Your task to perform on an android device: empty trash in the gmail app Image 0: 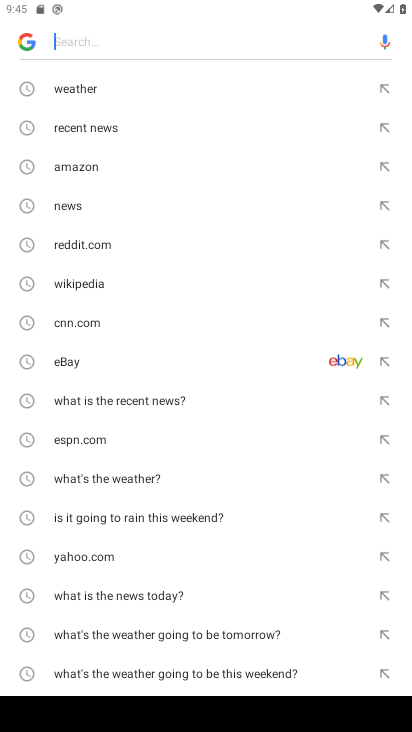
Step 0: press back button
Your task to perform on an android device: empty trash in the gmail app Image 1: 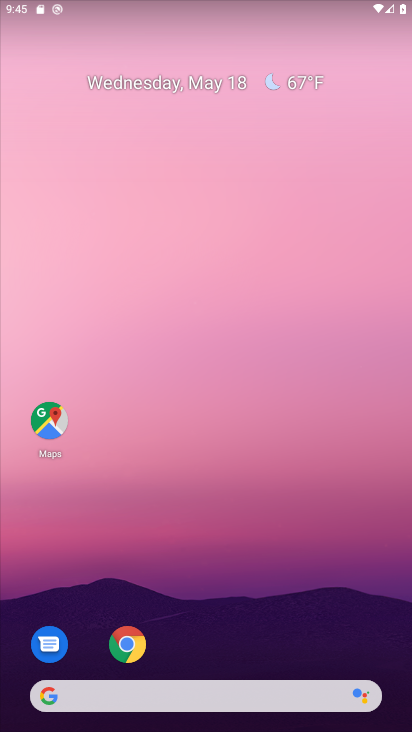
Step 1: press back button
Your task to perform on an android device: empty trash in the gmail app Image 2: 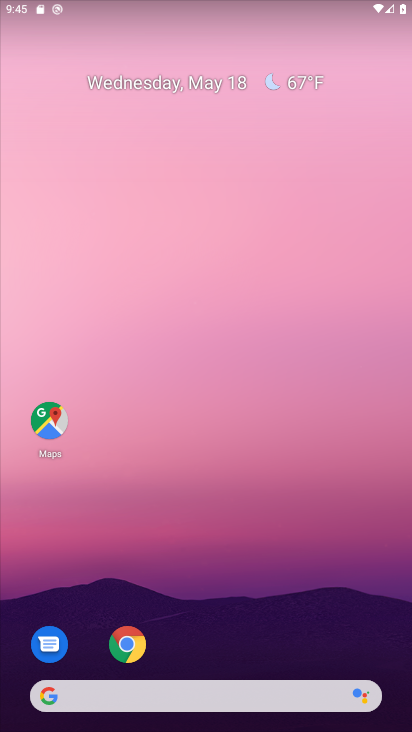
Step 2: drag from (239, 528) to (295, 10)
Your task to perform on an android device: empty trash in the gmail app Image 3: 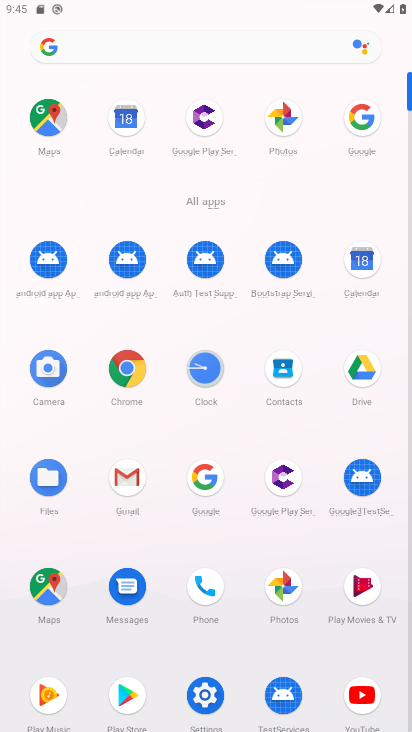
Step 3: click (126, 478)
Your task to perform on an android device: empty trash in the gmail app Image 4: 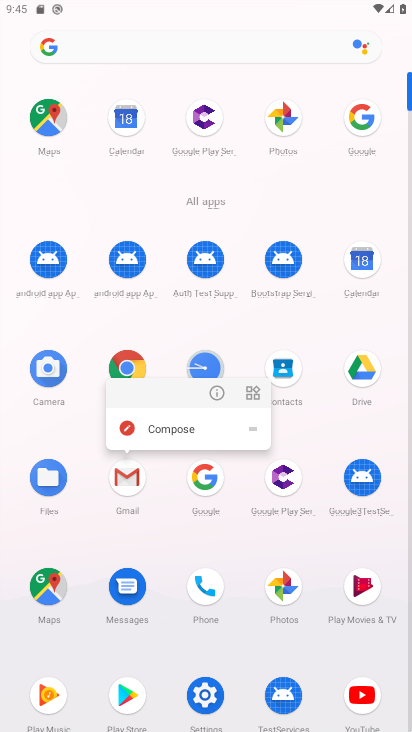
Step 4: click (126, 478)
Your task to perform on an android device: empty trash in the gmail app Image 5: 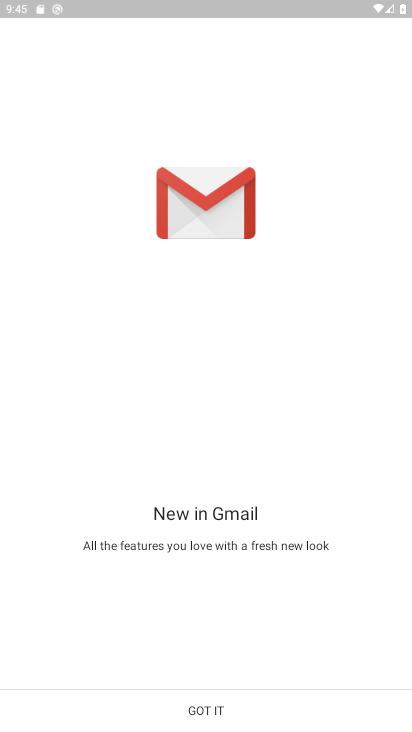
Step 5: click (213, 708)
Your task to perform on an android device: empty trash in the gmail app Image 6: 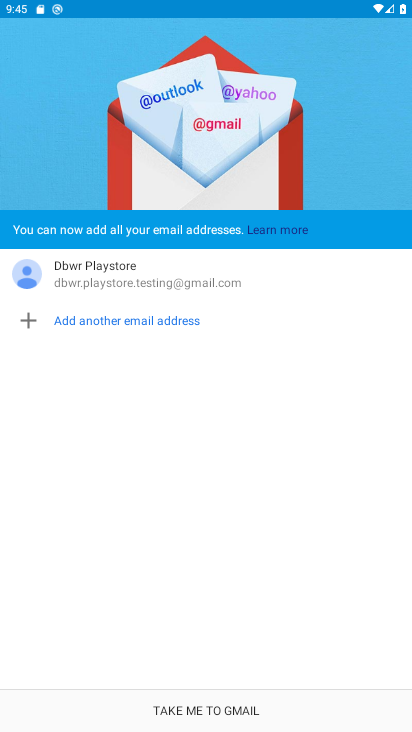
Step 6: click (205, 712)
Your task to perform on an android device: empty trash in the gmail app Image 7: 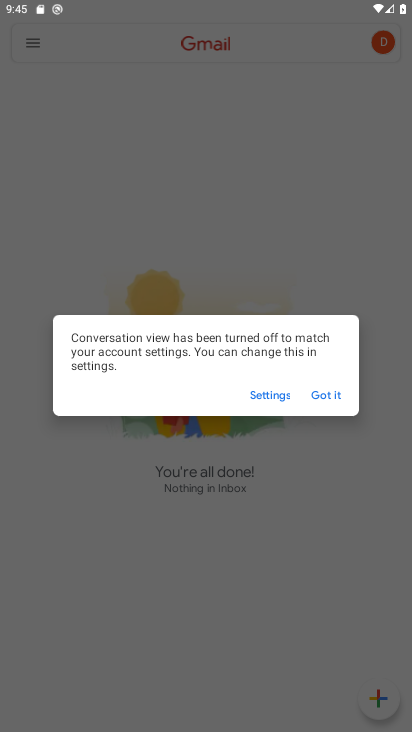
Step 7: click (340, 399)
Your task to perform on an android device: empty trash in the gmail app Image 8: 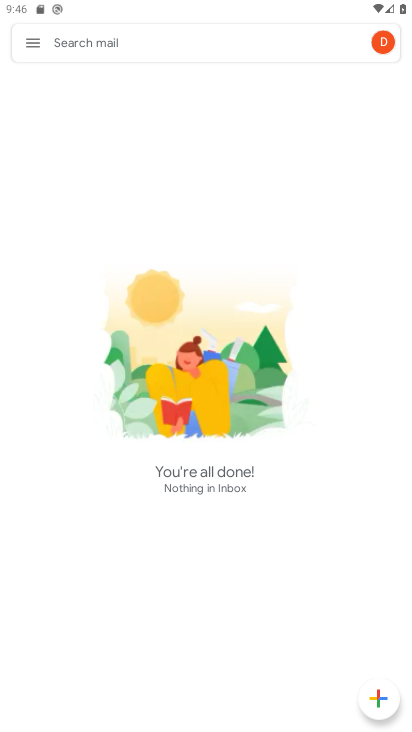
Step 8: click (35, 43)
Your task to perform on an android device: empty trash in the gmail app Image 9: 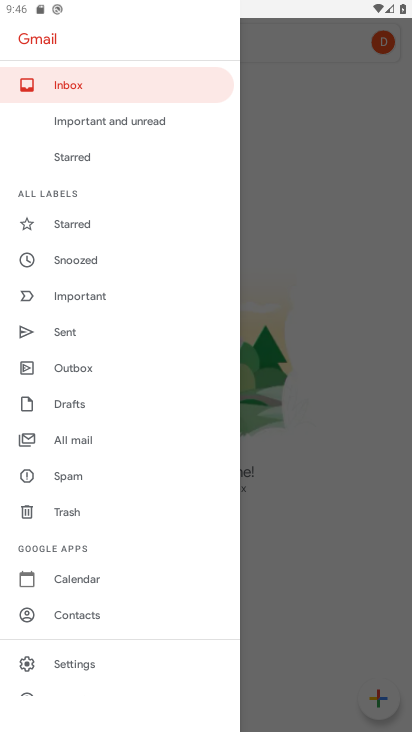
Step 9: click (67, 514)
Your task to perform on an android device: empty trash in the gmail app Image 10: 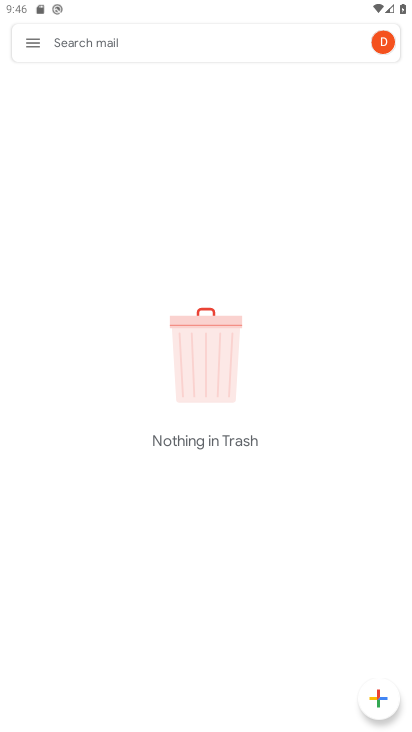
Step 10: task complete